Your task to perform on an android device: turn on the 12-hour format for clock Image 0: 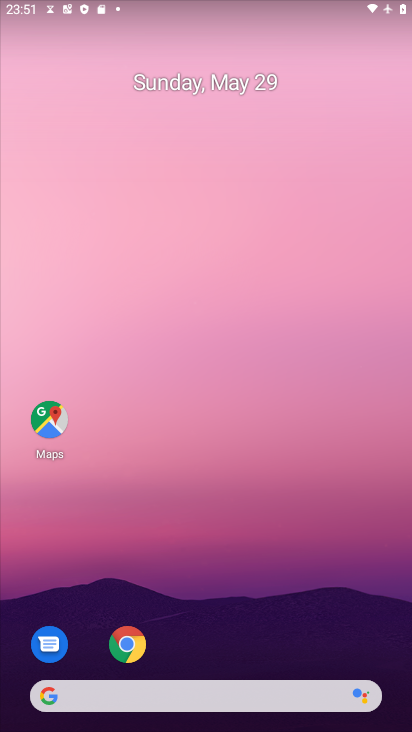
Step 0: click (192, 212)
Your task to perform on an android device: turn on the 12-hour format for clock Image 1: 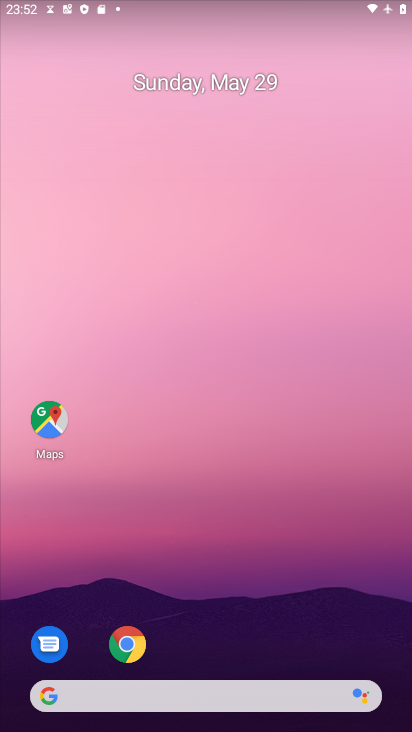
Step 1: drag from (199, 648) to (202, 152)
Your task to perform on an android device: turn on the 12-hour format for clock Image 2: 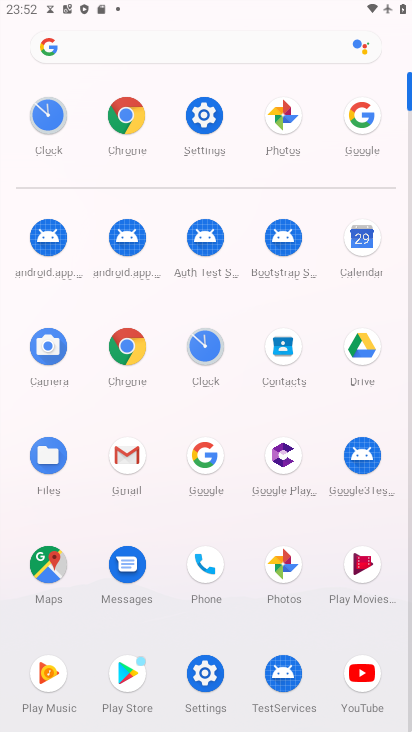
Step 2: click (205, 344)
Your task to perform on an android device: turn on the 12-hour format for clock Image 3: 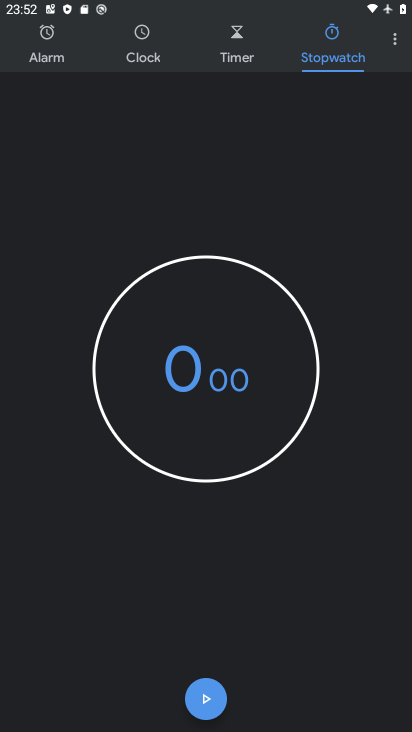
Step 3: click (399, 35)
Your task to perform on an android device: turn on the 12-hour format for clock Image 4: 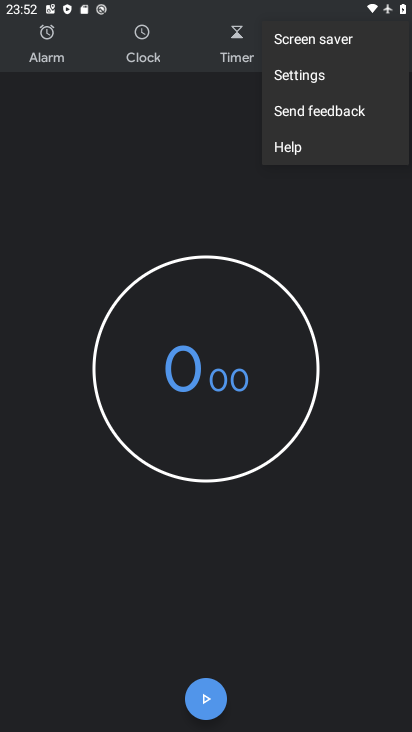
Step 4: click (331, 78)
Your task to perform on an android device: turn on the 12-hour format for clock Image 5: 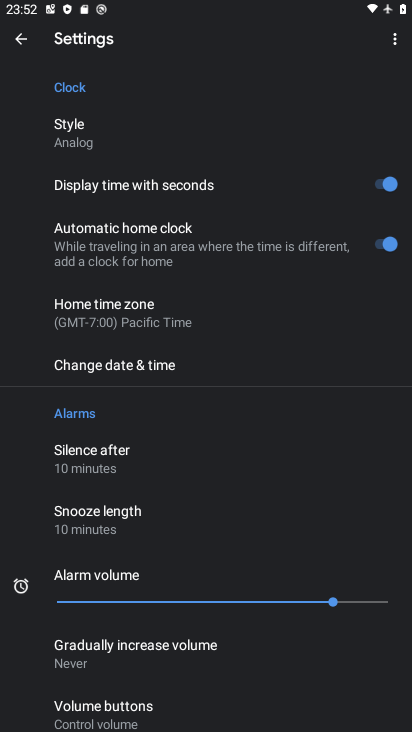
Step 5: click (175, 371)
Your task to perform on an android device: turn on the 12-hour format for clock Image 6: 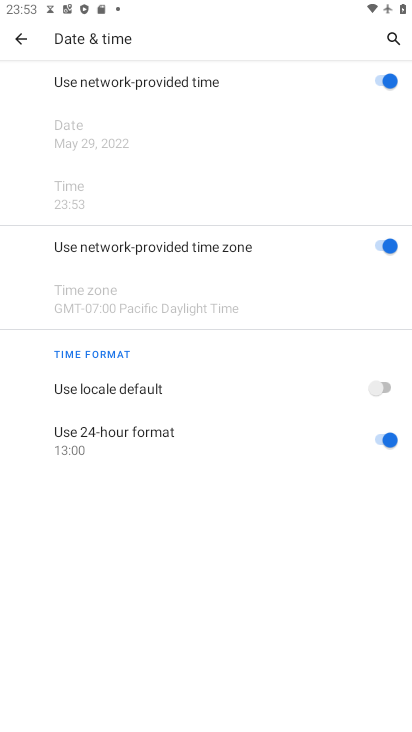
Step 6: task complete